Your task to perform on an android device: find photos in the google photos app Image 0: 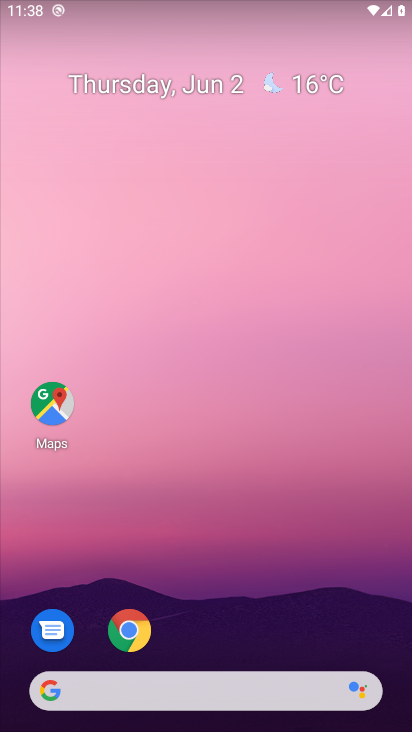
Step 0: drag from (238, 638) to (285, 73)
Your task to perform on an android device: find photos in the google photos app Image 1: 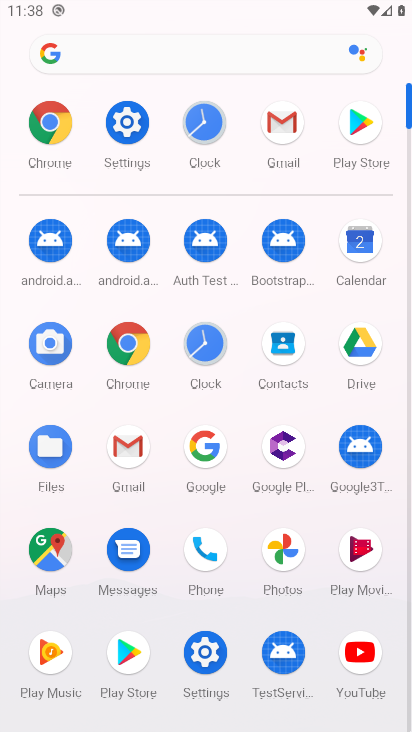
Step 1: click (279, 569)
Your task to perform on an android device: find photos in the google photos app Image 2: 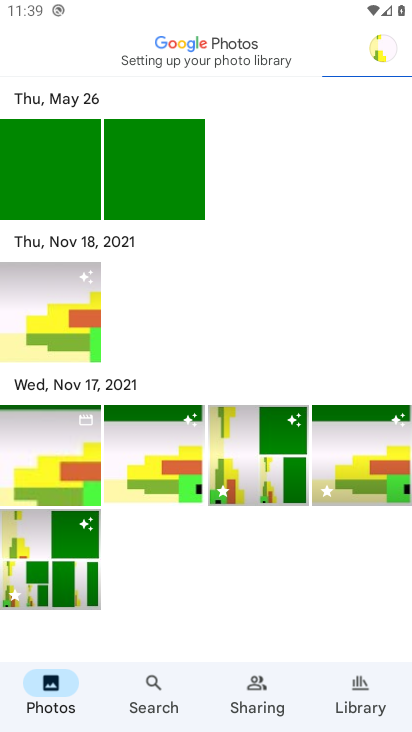
Step 2: task complete